Your task to perform on an android device: Open settings on Google Maps Image 0: 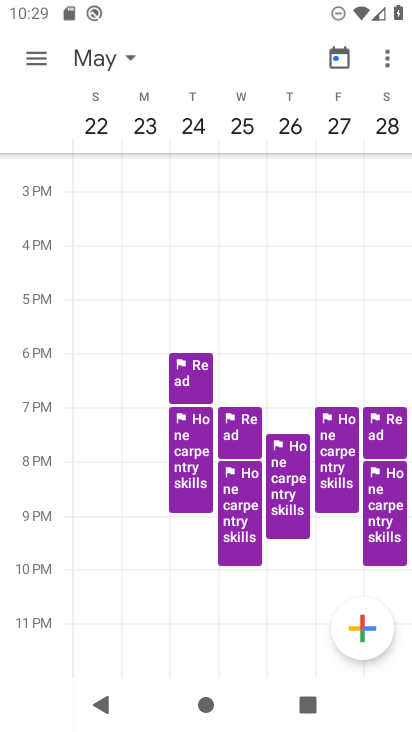
Step 0: press home button
Your task to perform on an android device: Open settings on Google Maps Image 1: 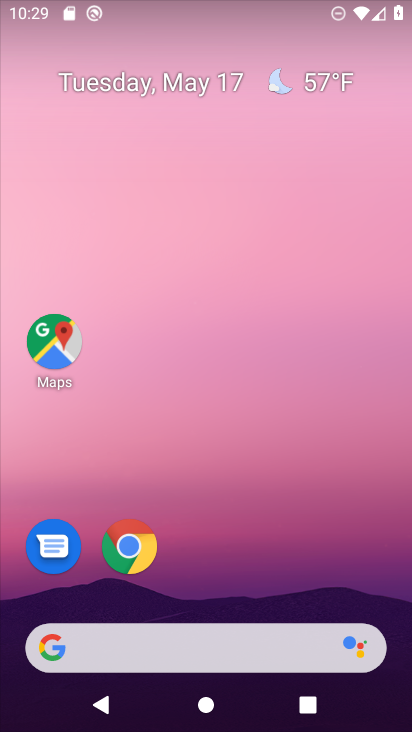
Step 1: click (56, 345)
Your task to perform on an android device: Open settings on Google Maps Image 2: 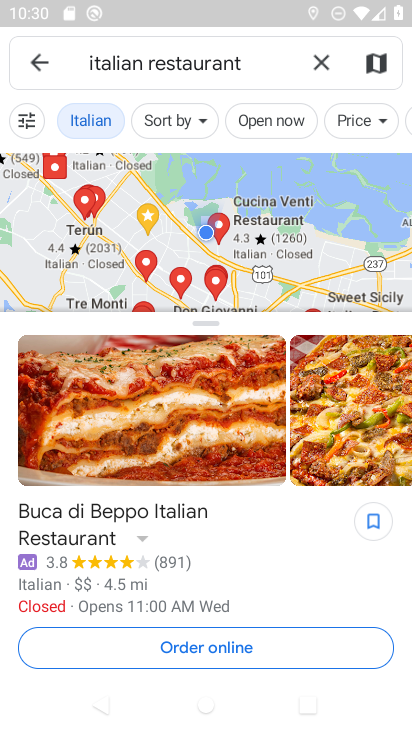
Step 2: click (319, 69)
Your task to perform on an android device: Open settings on Google Maps Image 3: 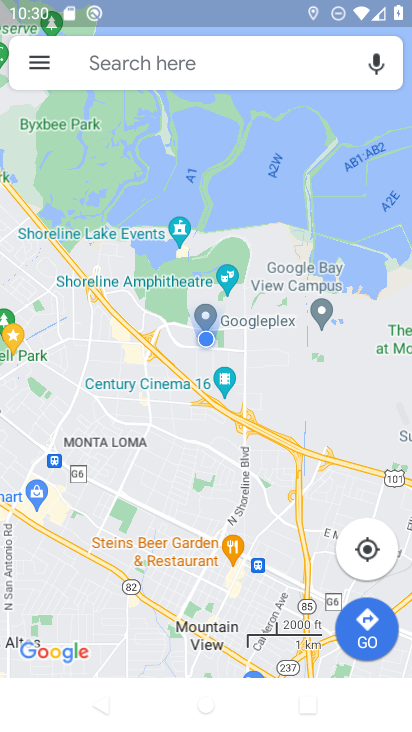
Step 3: click (39, 66)
Your task to perform on an android device: Open settings on Google Maps Image 4: 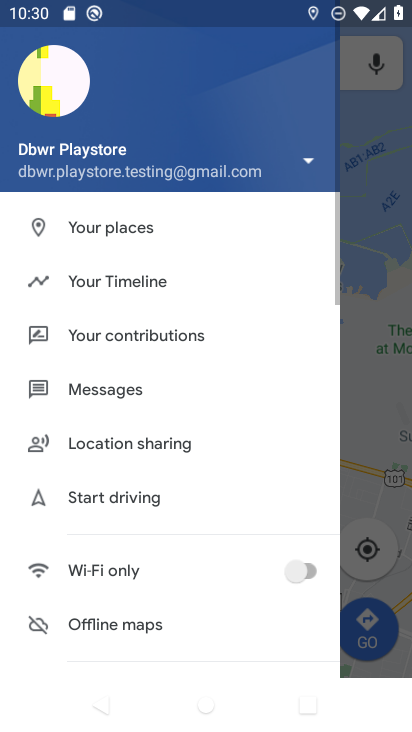
Step 4: drag from (183, 587) to (201, 74)
Your task to perform on an android device: Open settings on Google Maps Image 5: 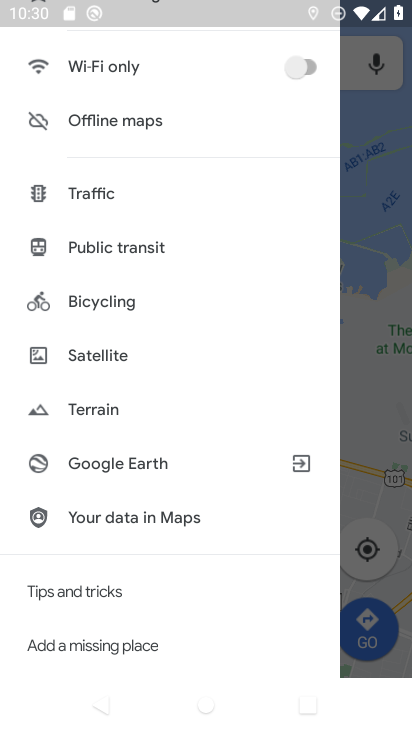
Step 5: drag from (144, 565) to (142, 308)
Your task to perform on an android device: Open settings on Google Maps Image 6: 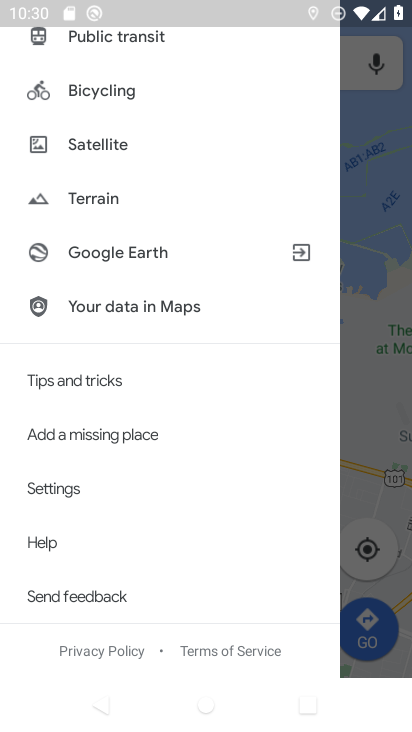
Step 6: click (52, 489)
Your task to perform on an android device: Open settings on Google Maps Image 7: 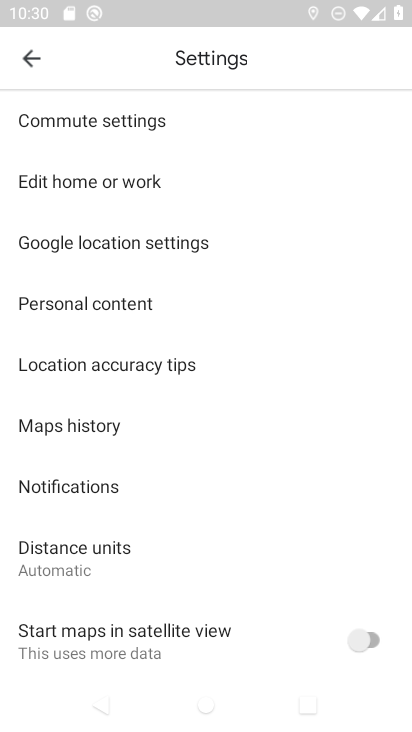
Step 7: task complete